Your task to perform on an android device: allow cookies in the chrome app Image 0: 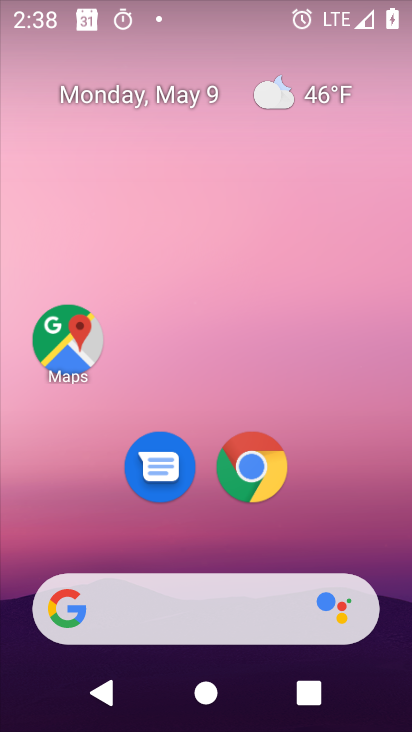
Step 0: click (258, 462)
Your task to perform on an android device: allow cookies in the chrome app Image 1: 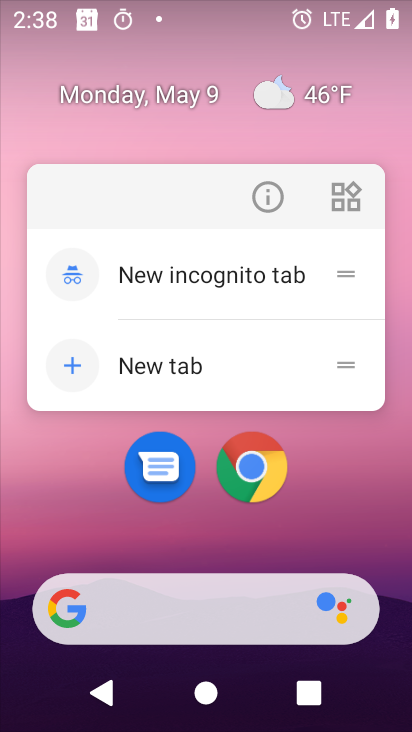
Step 1: click (235, 468)
Your task to perform on an android device: allow cookies in the chrome app Image 2: 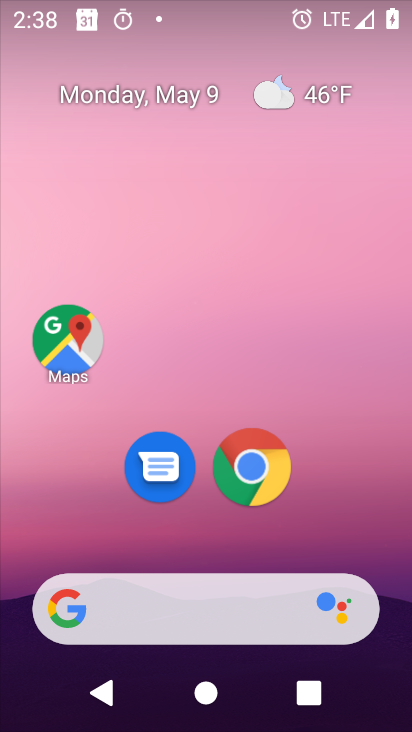
Step 2: click (247, 467)
Your task to perform on an android device: allow cookies in the chrome app Image 3: 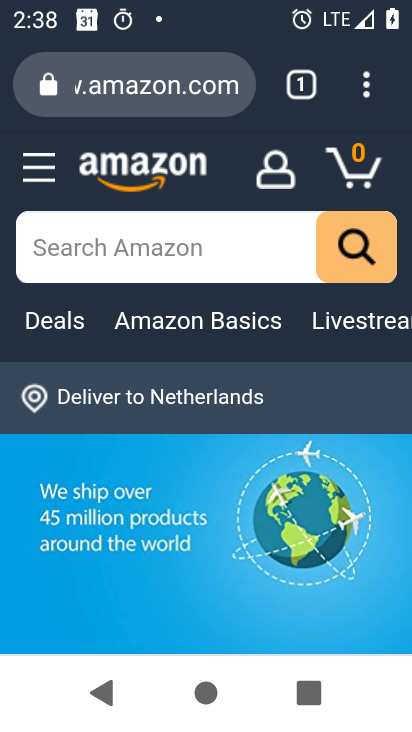
Step 3: drag from (358, 84) to (275, 552)
Your task to perform on an android device: allow cookies in the chrome app Image 4: 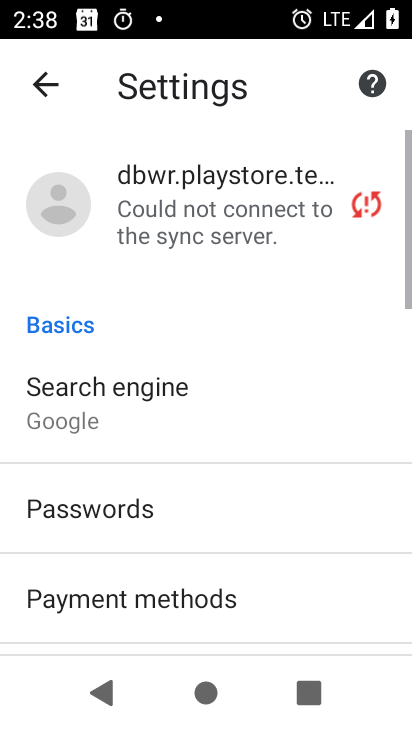
Step 4: drag from (225, 582) to (284, 10)
Your task to perform on an android device: allow cookies in the chrome app Image 5: 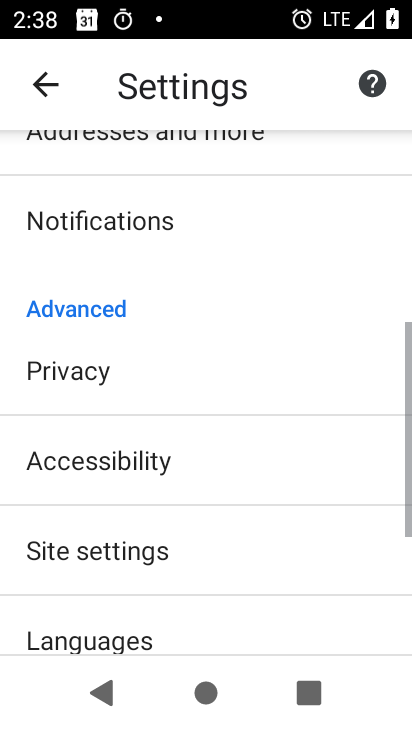
Step 5: click (167, 559)
Your task to perform on an android device: allow cookies in the chrome app Image 6: 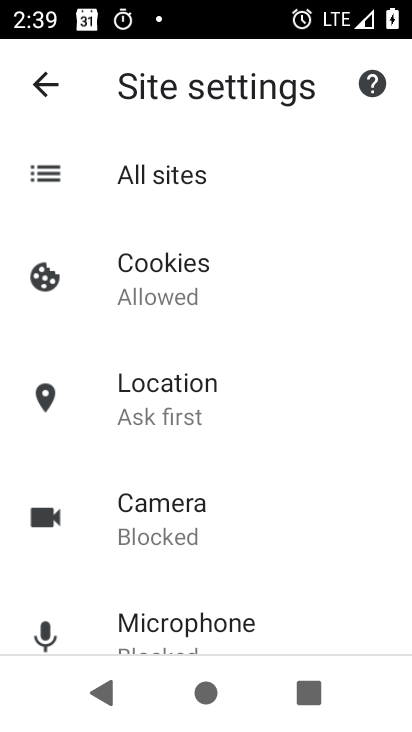
Step 6: click (189, 256)
Your task to perform on an android device: allow cookies in the chrome app Image 7: 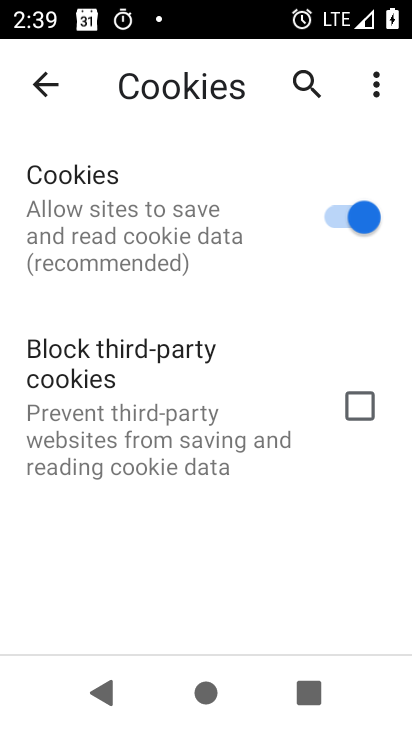
Step 7: task complete